Your task to perform on an android device: turn off wifi Image 0: 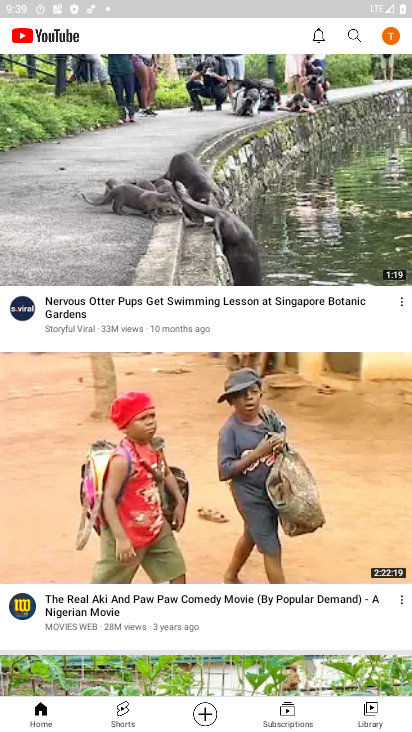
Step 0: press back button
Your task to perform on an android device: turn off wifi Image 1: 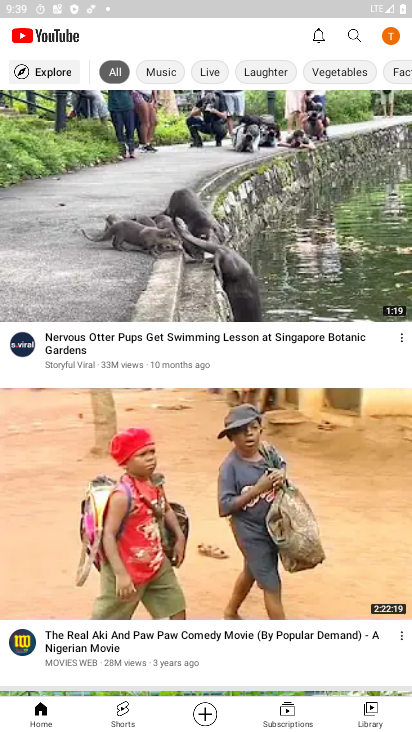
Step 1: press back button
Your task to perform on an android device: turn off wifi Image 2: 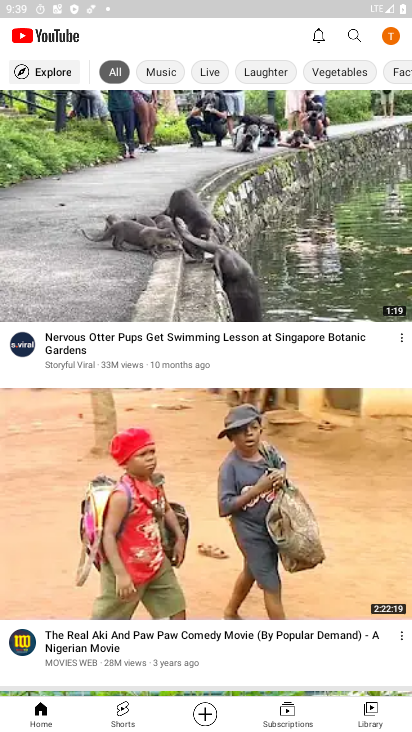
Step 2: press back button
Your task to perform on an android device: turn off wifi Image 3: 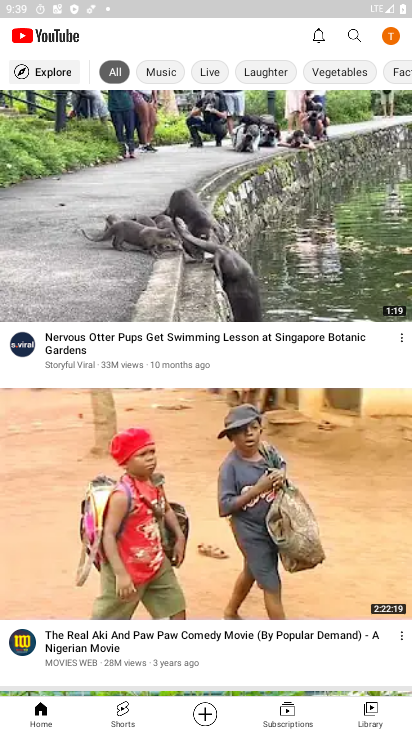
Step 3: press back button
Your task to perform on an android device: turn off wifi Image 4: 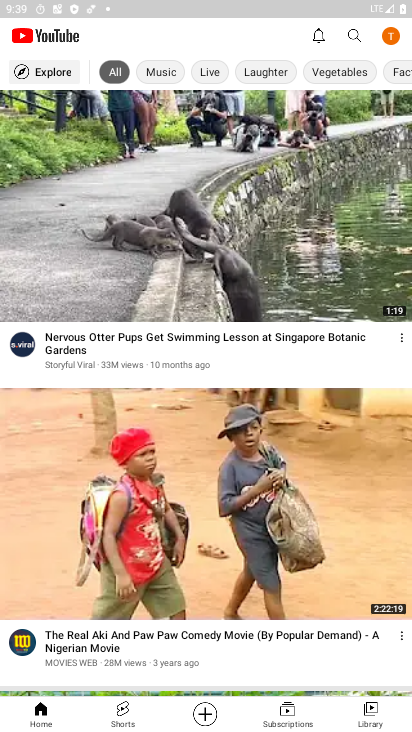
Step 4: press back button
Your task to perform on an android device: turn off wifi Image 5: 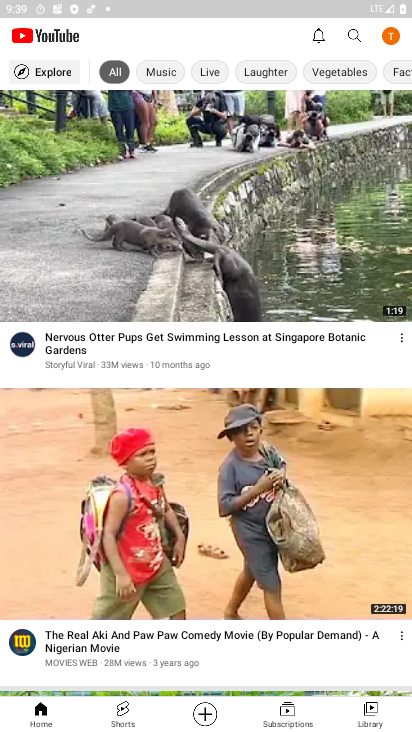
Step 5: press back button
Your task to perform on an android device: turn off wifi Image 6: 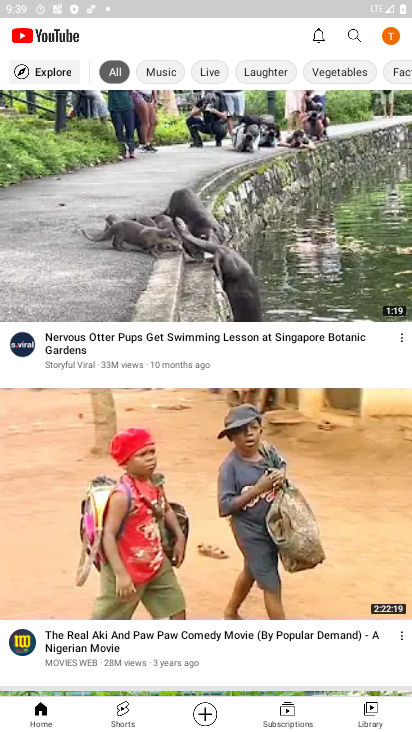
Step 6: press home button
Your task to perform on an android device: turn off wifi Image 7: 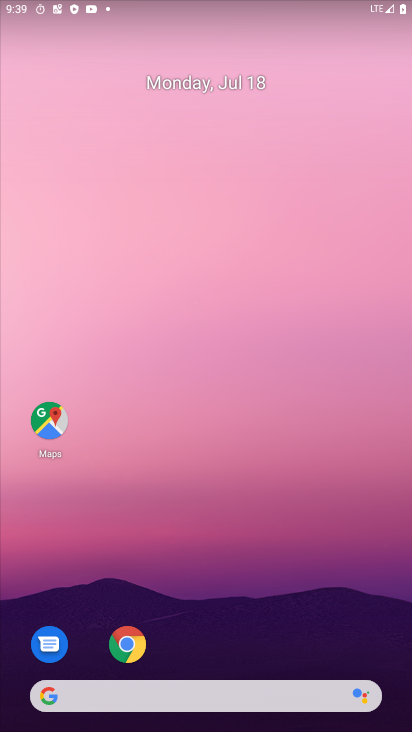
Step 7: drag from (224, 679) to (131, 13)
Your task to perform on an android device: turn off wifi Image 8: 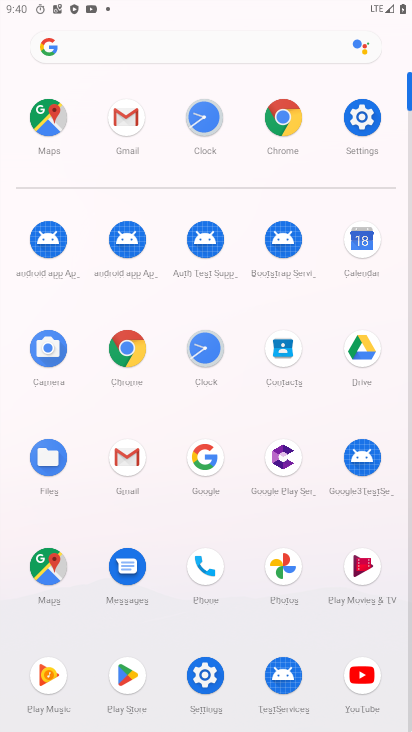
Step 8: click (346, 129)
Your task to perform on an android device: turn off wifi Image 9: 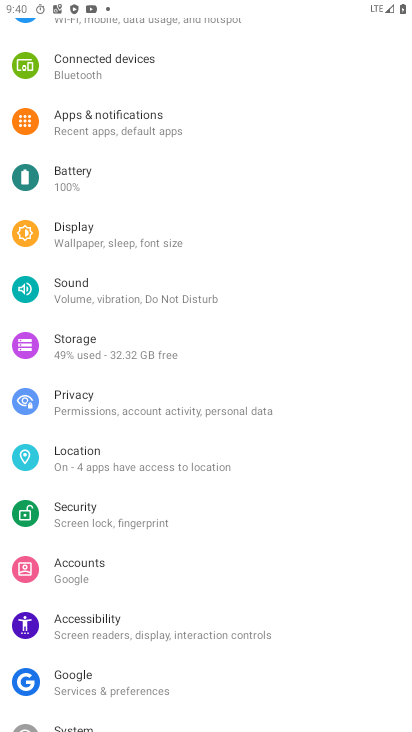
Step 9: drag from (129, 98) to (99, 671)
Your task to perform on an android device: turn off wifi Image 10: 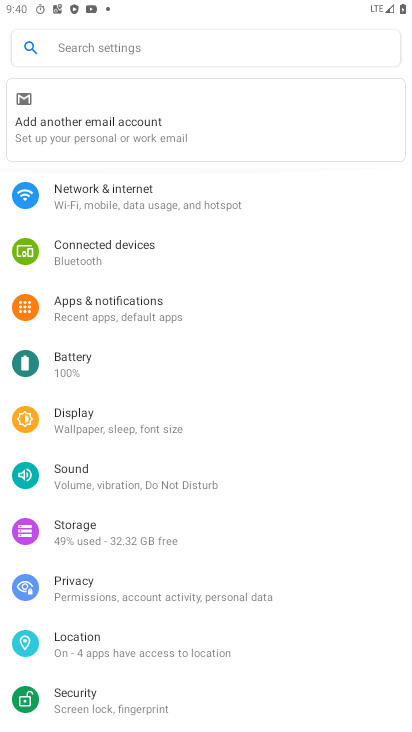
Step 10: click (85, 173)
Your task to perform on an android device: turn off wifi Image 11: 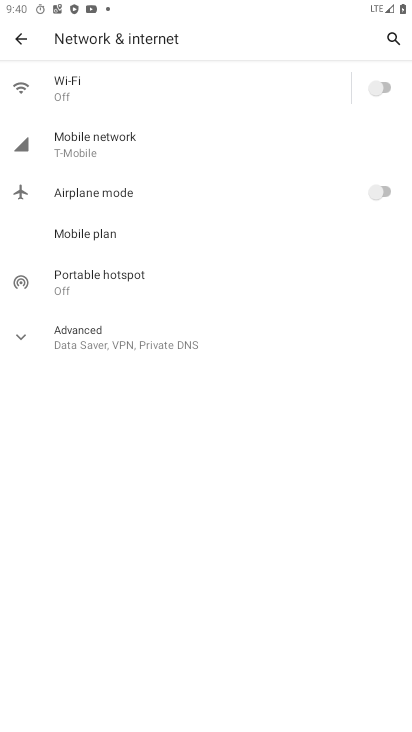
Step 11: click (98, 98)
Your task to perform on an android device: turn off wifi Image 12: 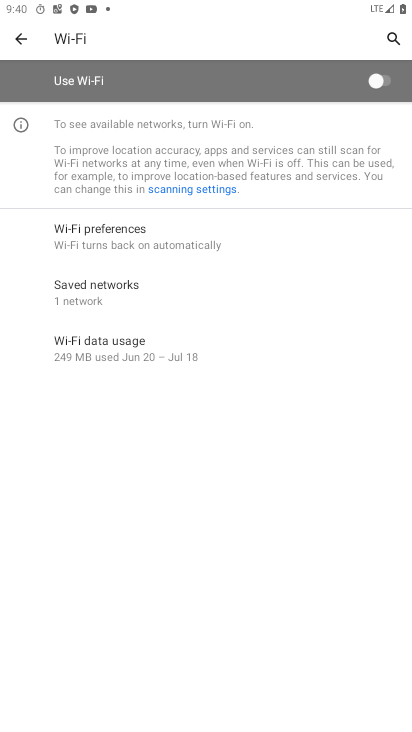
Step 12: task complete